Your task to perform on an android device: open app "LiveIn - Share Your Moment" (install if not already installed) Image 0: 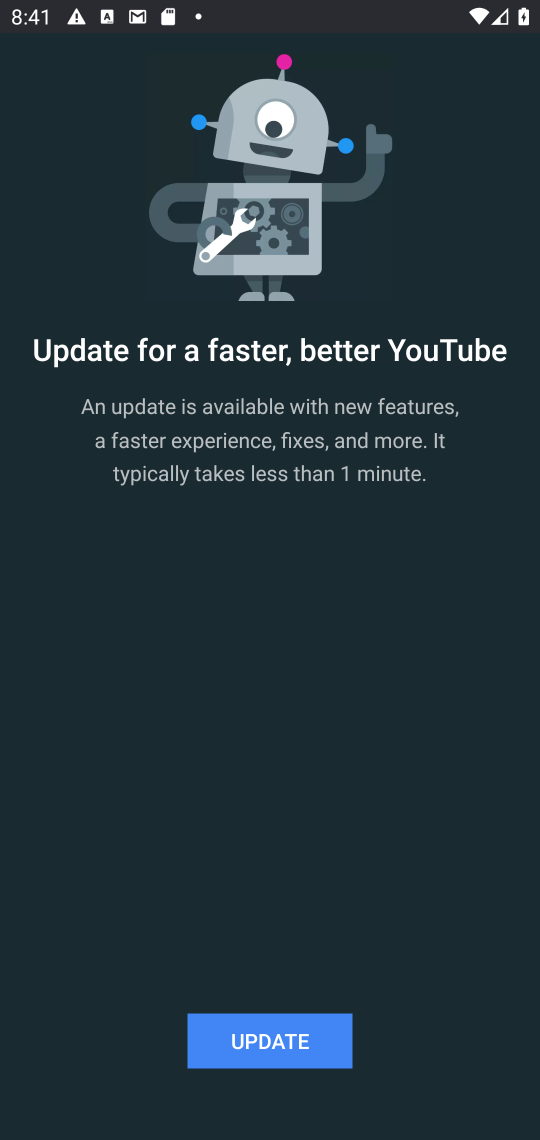
Step 0: press home button
Your task to perform on an android device: open app "LiveIn - Share Your Moment" (install if not already installed) Image 1: 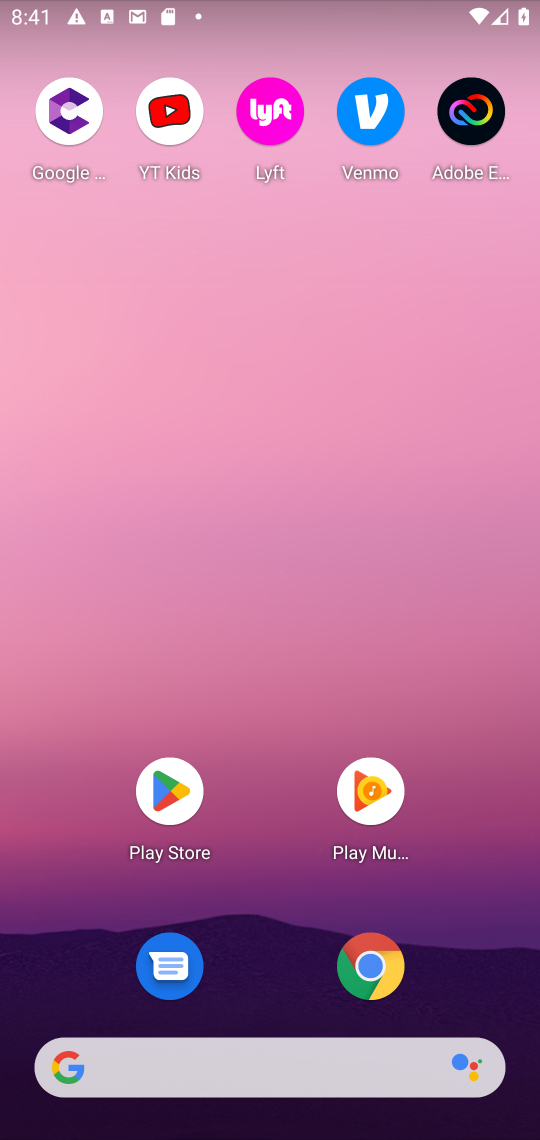
Step 1: click (169, 792)
Your task to perform on an android device: open app "LiveIn - Share Your Moment" (install if not already installed) Image 2: 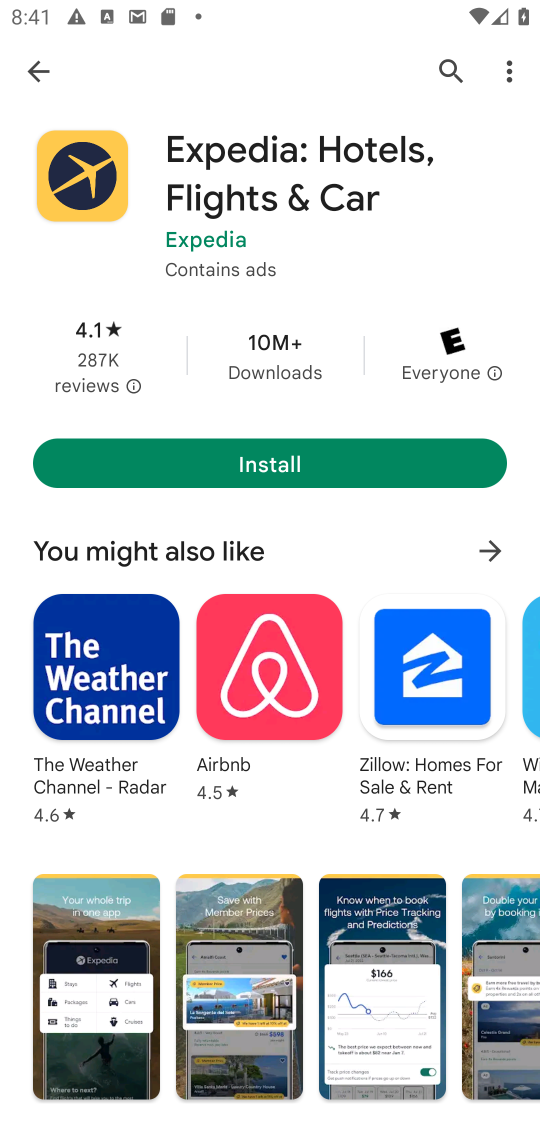
Step 2: click (443, 67)
Your task to perform on an android device: open app "LiveIn - Share Your Moment" (install if not already installed) Image 3: 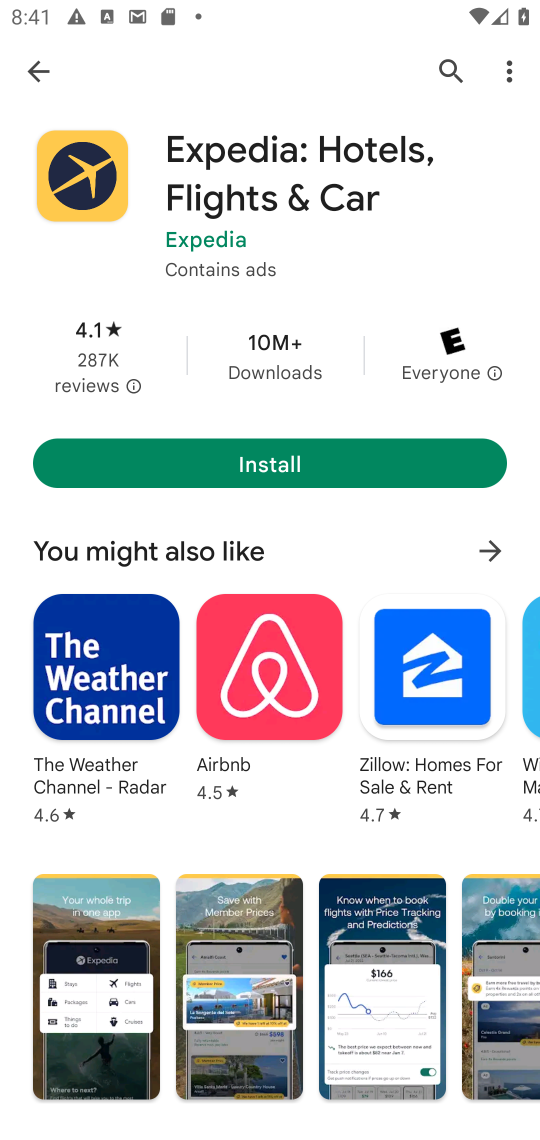
Step 3: click (447, 68)
Your task to perform on an android device: open app "LiveIn - Share Your Moment" (install if not already installed) Image 4: 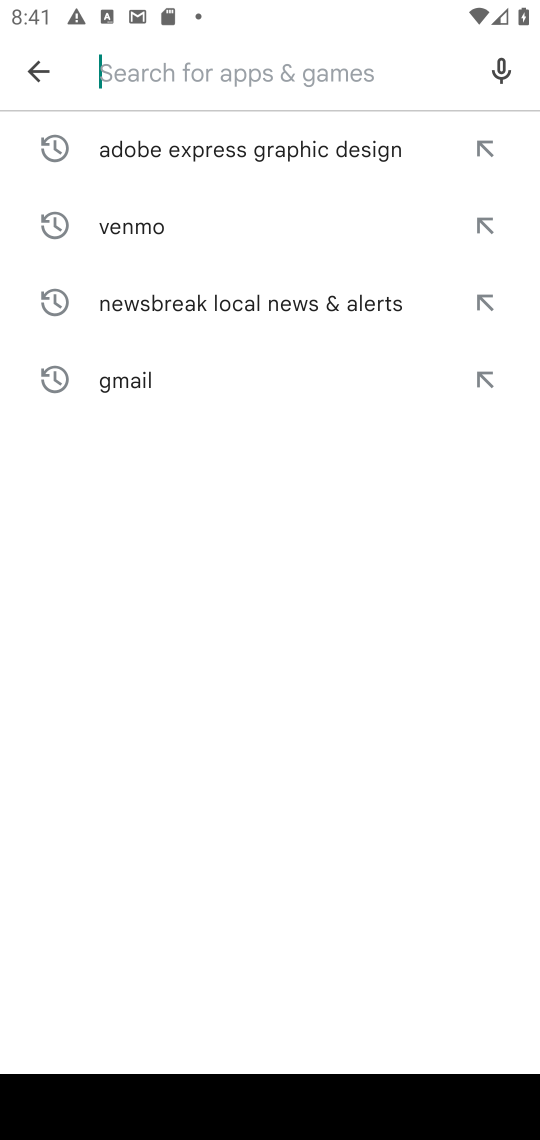
Step 4: type "LiveIn - Share Your Moment"
Your task to perform on an android device: open app "LiveIn - Share Your Moment" (install if not already installed) Image 5: 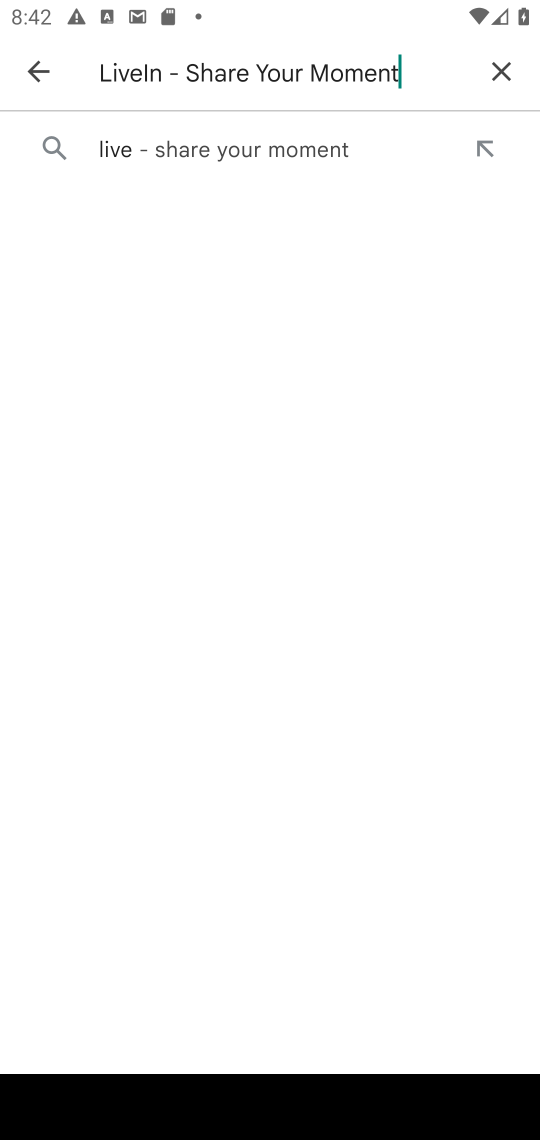
Step 5: click (298, 141)
Your task to perform on an android device: open app "LiveIn - Share Your Moment" (install if not already installed) Image 6: 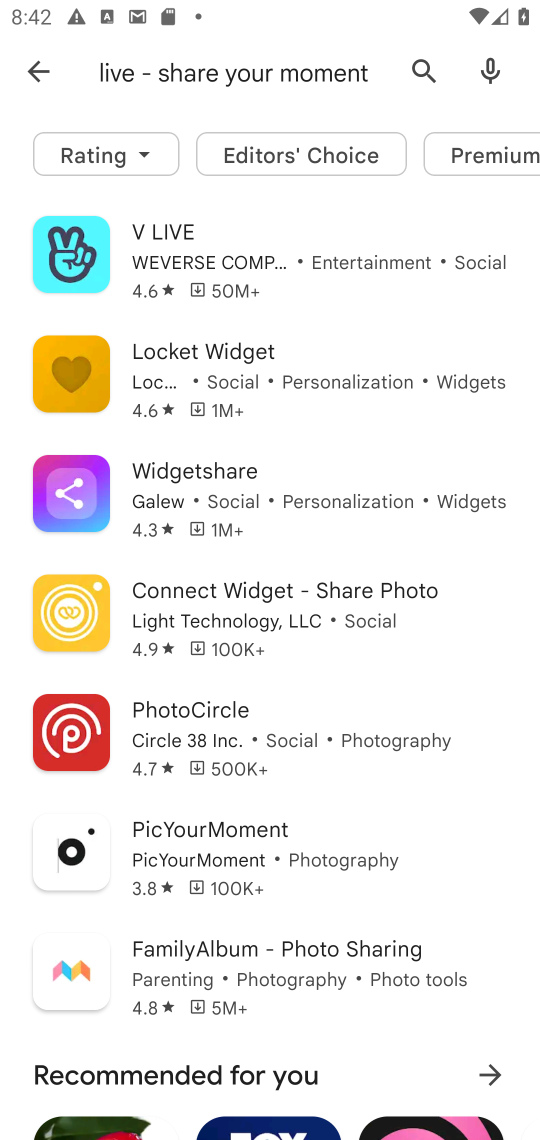
Step 6: task complete